Your task to perform on an android device: Open Google Maps and go to "Timeline" Image 0: 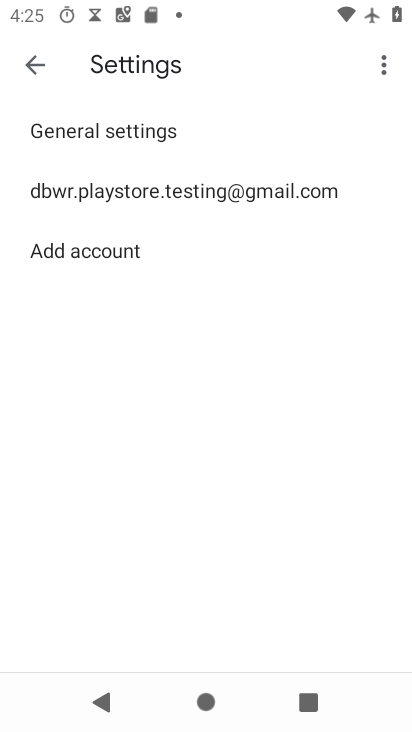
Step 0: press home button
Your task to perform on an android device: Open Google Maps and go to "Timeline" Image 1: 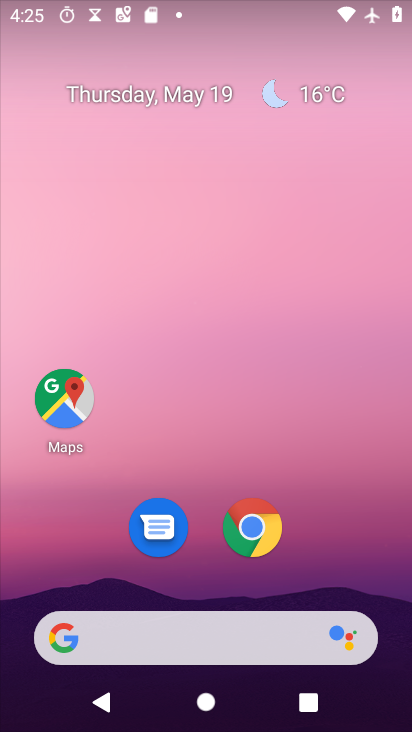
Step 1: click (71, 416)
Your task to perform on an android device: Open Google Maps and go to "Timeline" Image 2: 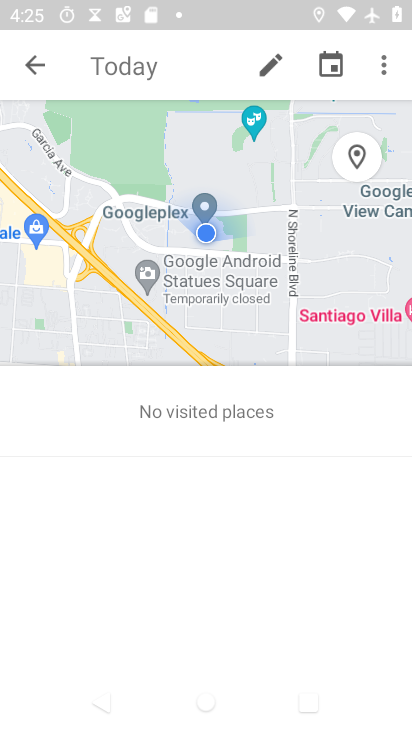
Step 2: click (37, 67)
Your task to perform on an android device: Open Google Maps and go to "Timeline" Image 3: 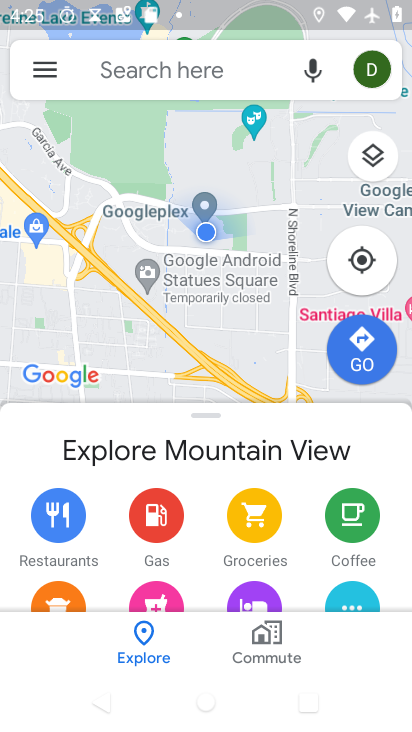
Step 3: click (55, 68)
Your task to perform on an android device: Open Google Maps and go to "Timeline" Image 4: 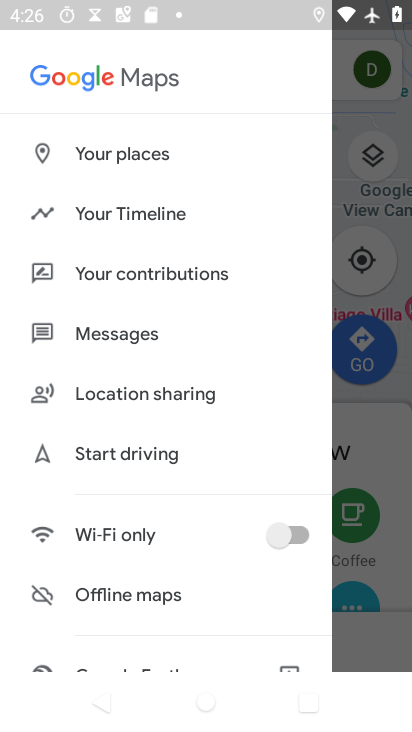
Step 4: click (172, 205)
Your task to perform on an android device: Open Google Maps and go to "Timeline" Image 5: 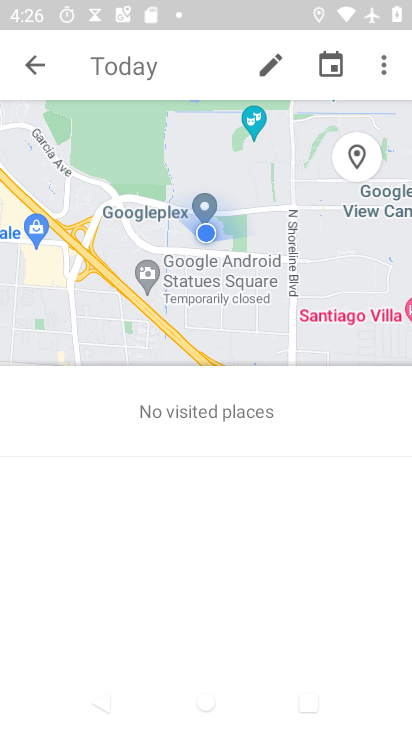
Step 5: click (22, 59)
Your task to perform on an android device: Open Google Maps and go to "Timeline" Image 6: 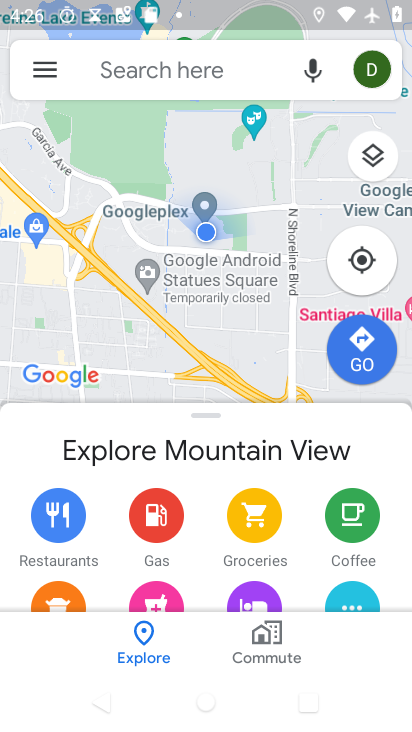
Step 6: task complete